Your task to perform on an android device: Open Youtube and go to "Your channel" Image 0: 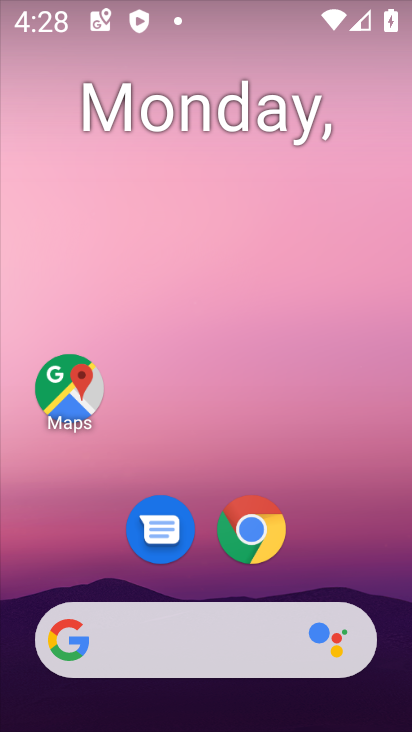
Step 0: drag from (226, 721) to (223, 168)
Your task to perform on an android device: Open Youtube and go to "Your channel" Image 1: 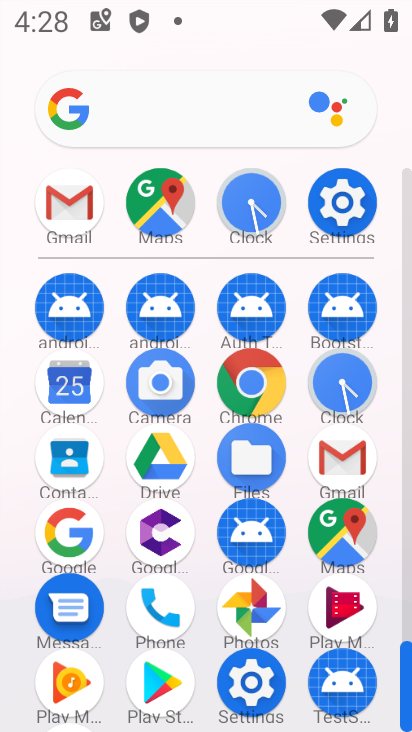
Step 1: drag from (207, 674) to (196, 185)
Your task to perform on an android device: Open Youtube and go to "Your channel" Image 2: 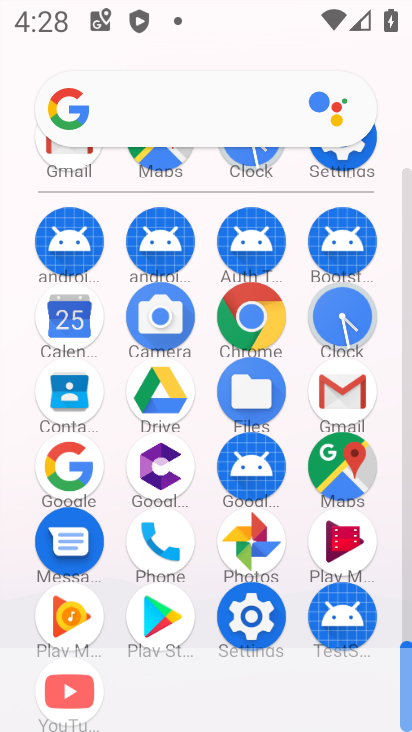
Step 2: click (71, 679)
Your task to perform on an android device: Open Youtube and go to "Your channel" Image 3: 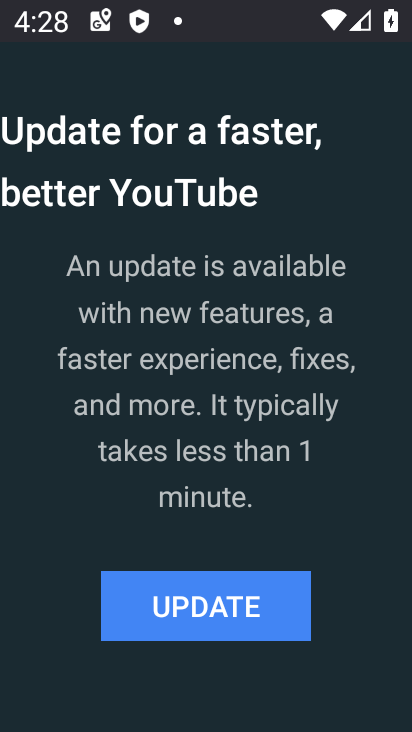
Step 3: task complete